Your task to perform on an android device: toggle notification dots Image 0: 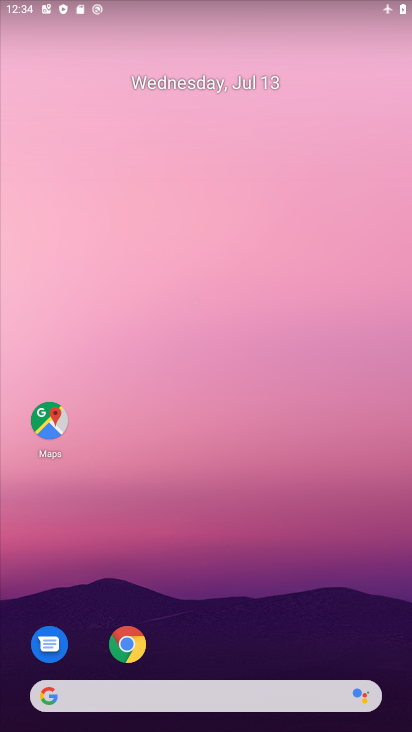
Step 0: drag from (320, 610) to (286, 76)
Your task to perform on an android device: toggle notification dots Image 1: 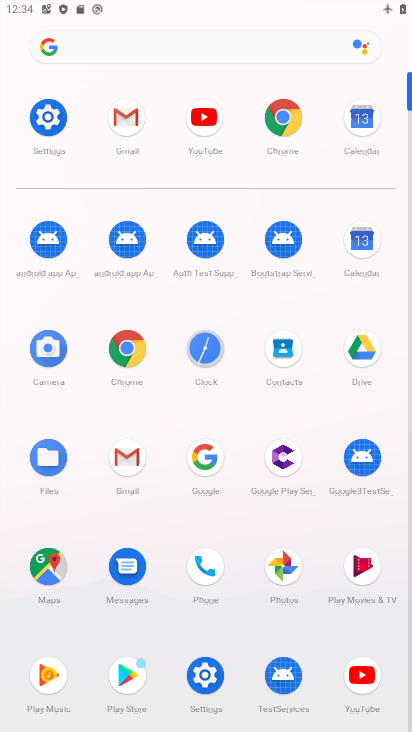
Step 1: click (49, 116)
Your task to perform on an android device: toggle notification dots Image 2: 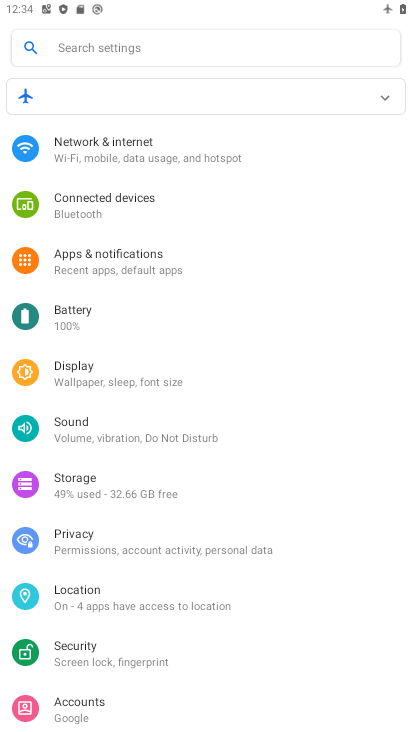
Step 2: click (128, 264)
Your task to perform on an android device: toggle notification dots Image 3: 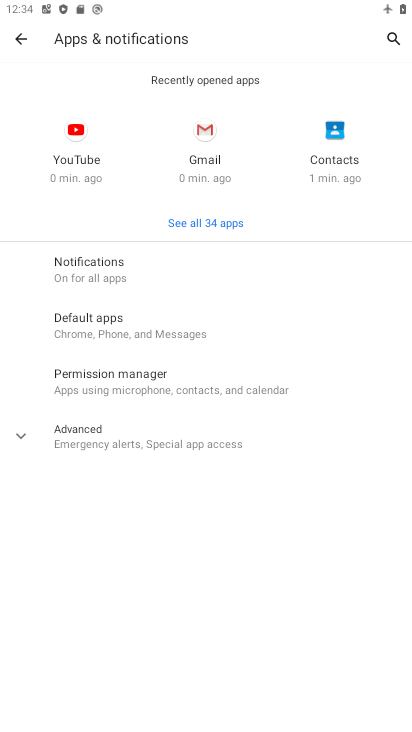
Step 3: click (114, 263)
Your task to perform on an android device: toggle notification dots Image 4: 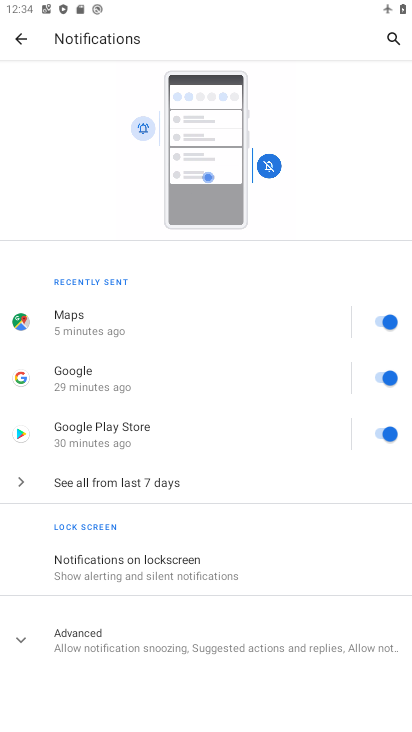
Step 4: click (203, 649)
Your task to perform on an android device: toggle notification dots Image 5: 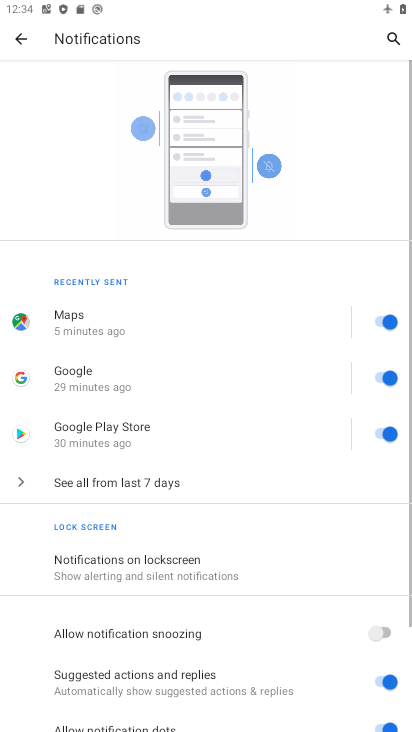
Step 5: drag from (263, 618) to (316, 148)
Your task to perform on an android device: toggle notification dots Image 6: 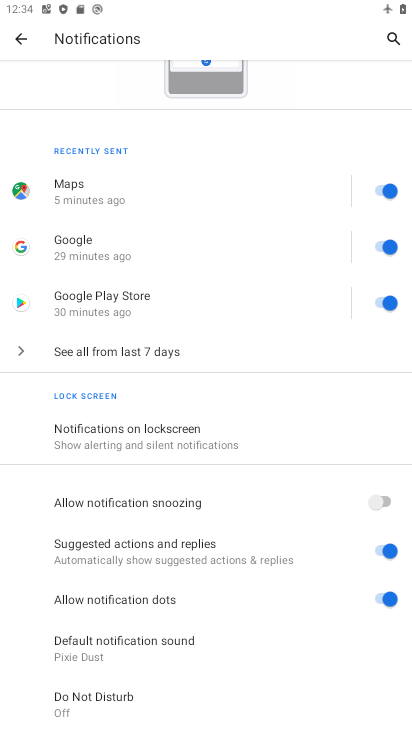
Step 6: click (384, 602)
Your task to perform on an android device: toggle notification dots Image 7: 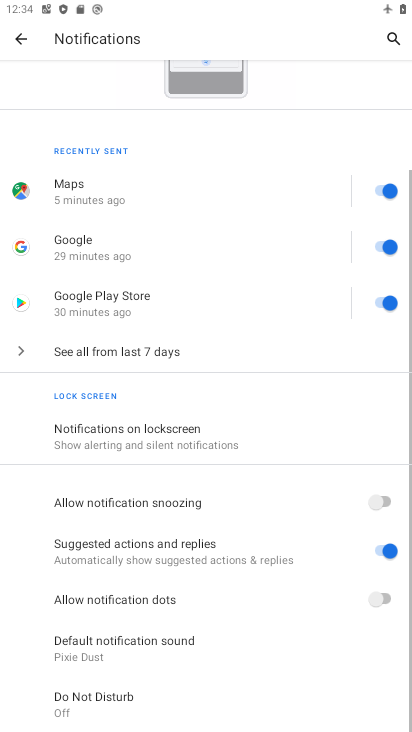
Step 7: task complete